Your task to perform on an android device: change the clock style Image 0: 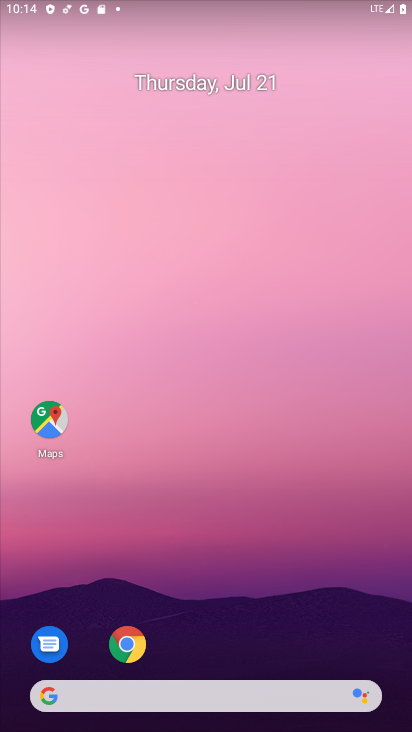
Step 0: press home button
Your task to perform on an android device: change the clock style Image 1: 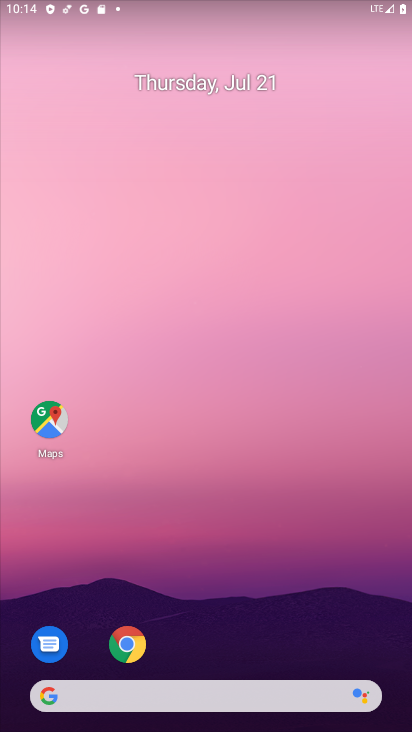
Step 1: drag from (210, 659) to (218, 2)
Your task to perform on an android device: change the clock style Image 2: 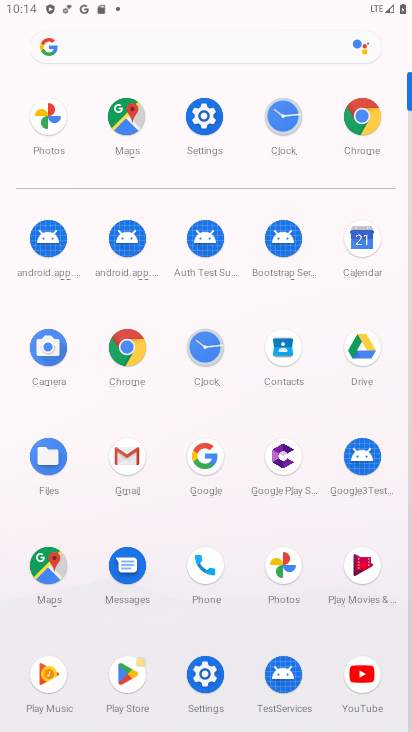
Step 2: click (202, 342)
Your task to perform on an android device: change the clock style Image 3: 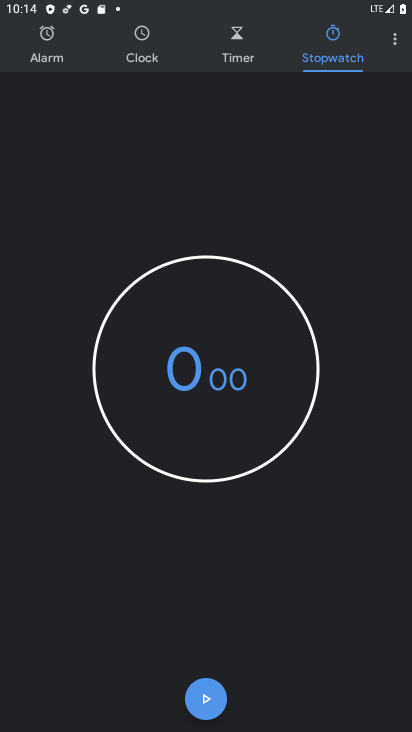
Step 3: click (390, 40)
Your task to perform on an android device: change the clock style Image 4: 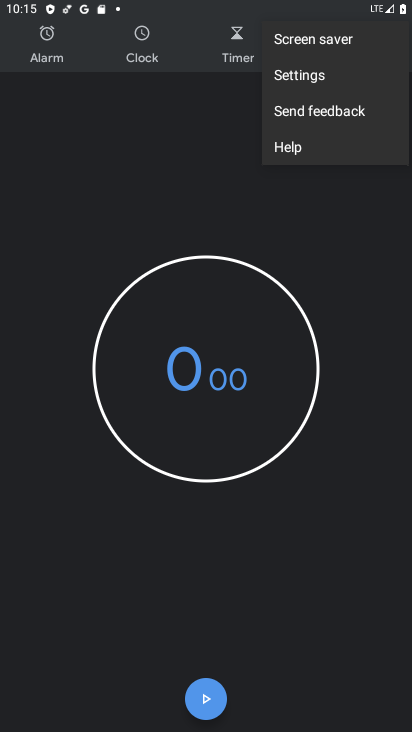
Step 4: click (332, 73)
Your task to perform on an android device: change the clock style Image 5: 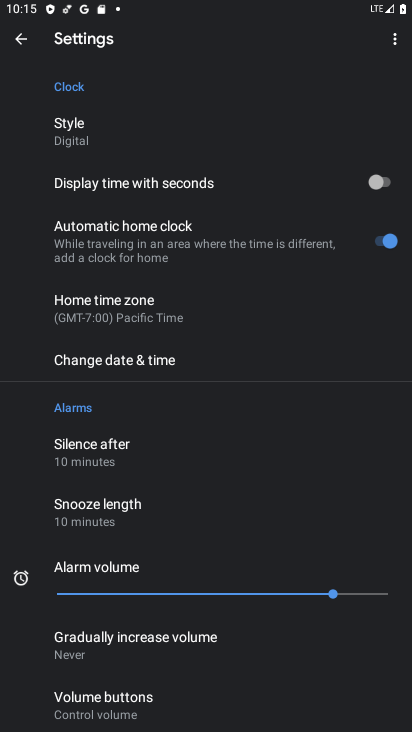
Step 5: click (88, 131)
Your task to perform on an android device: change the clock style Image 6: 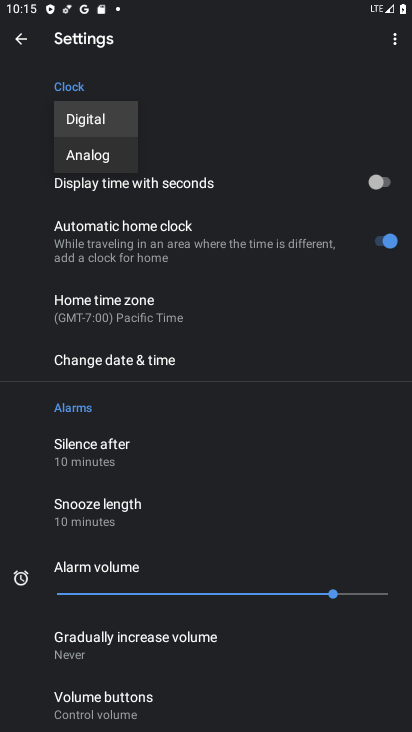
Step 6: click (113, 159)
Your task to perform on an android device: change the clock style Image 7: 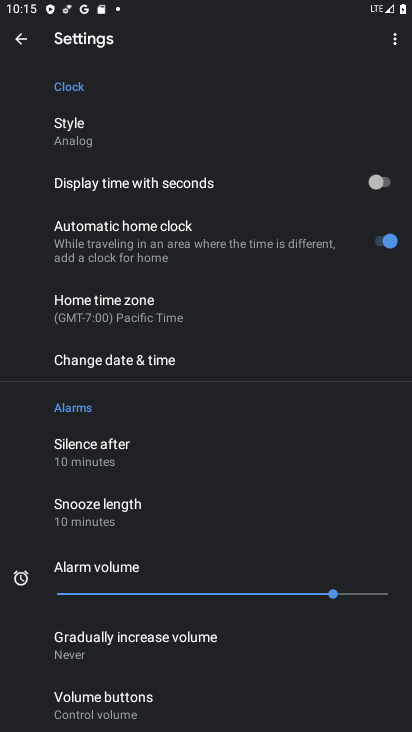
Step 7: task complete